Your task to perform on an android device: Open Google Image 0: 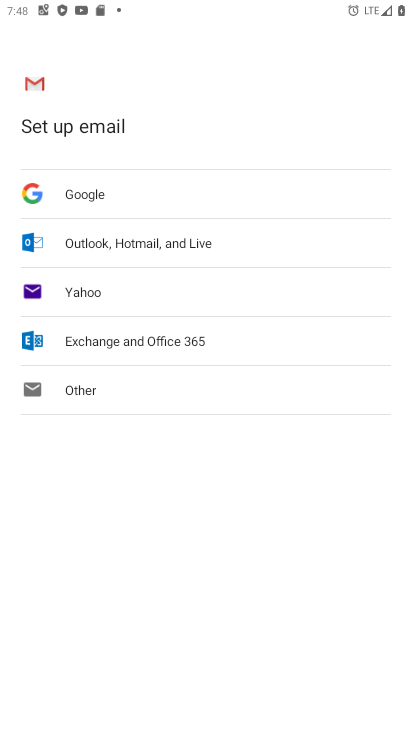
Step 0: press home button
Your task to perform on an android device: Open Google Image 1: 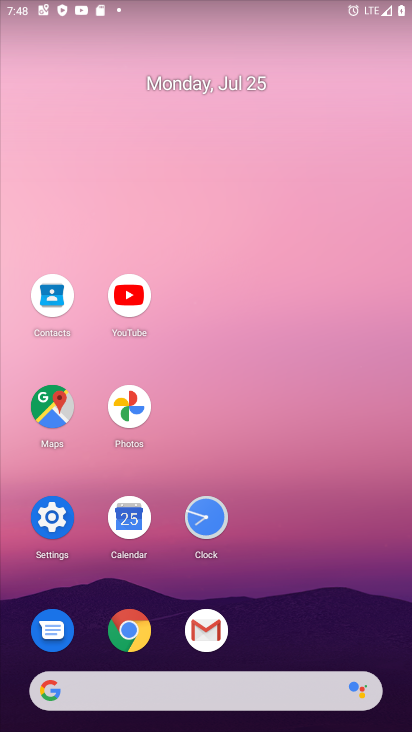
Step 1: click (42, 689)
Your task to perform on an android device: Open Google Image 2: 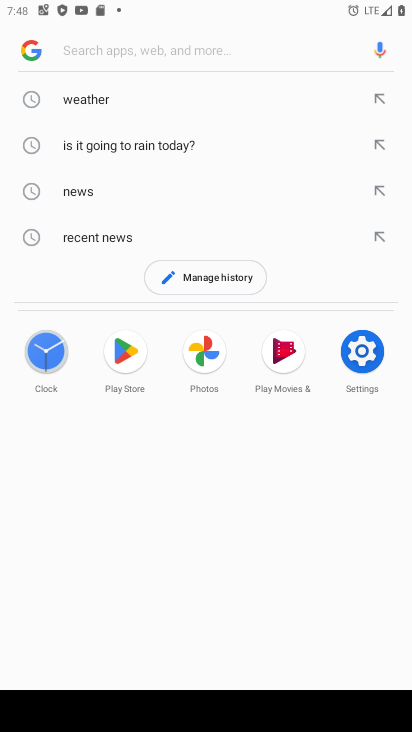
Step 2: click (36, 46)
Your task to perform on an android device: Open Google Image 3: 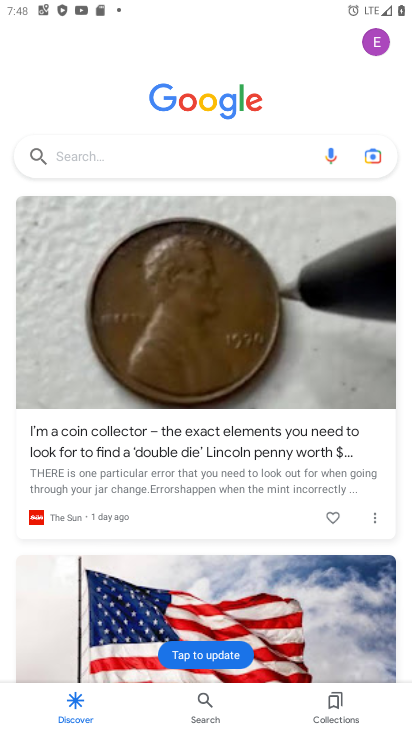
Step 3: task complete